Your task to perform on an android device: Open my contact list Image 0: 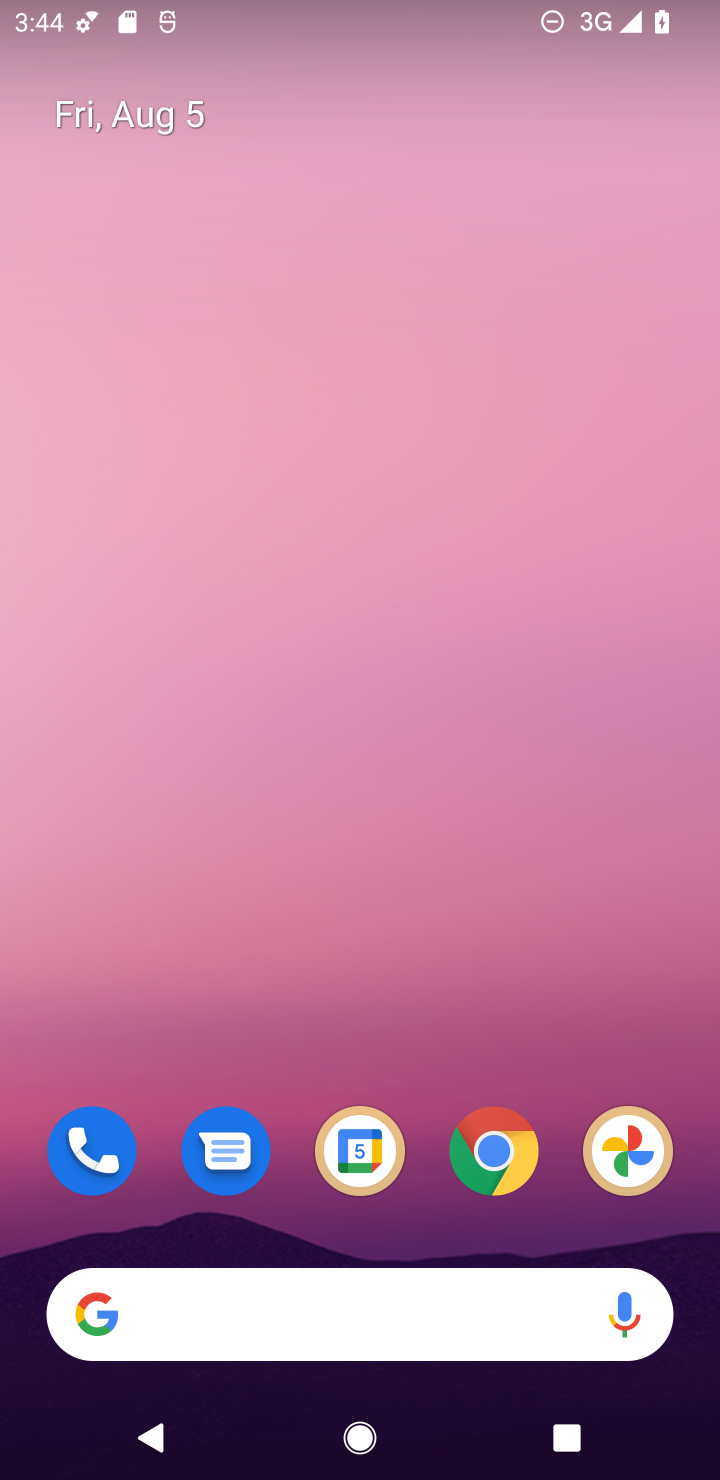
Step 0: drag from (325, 994) to (277, 251)
Your task to perform on an android device: Open my contact list Image 1: 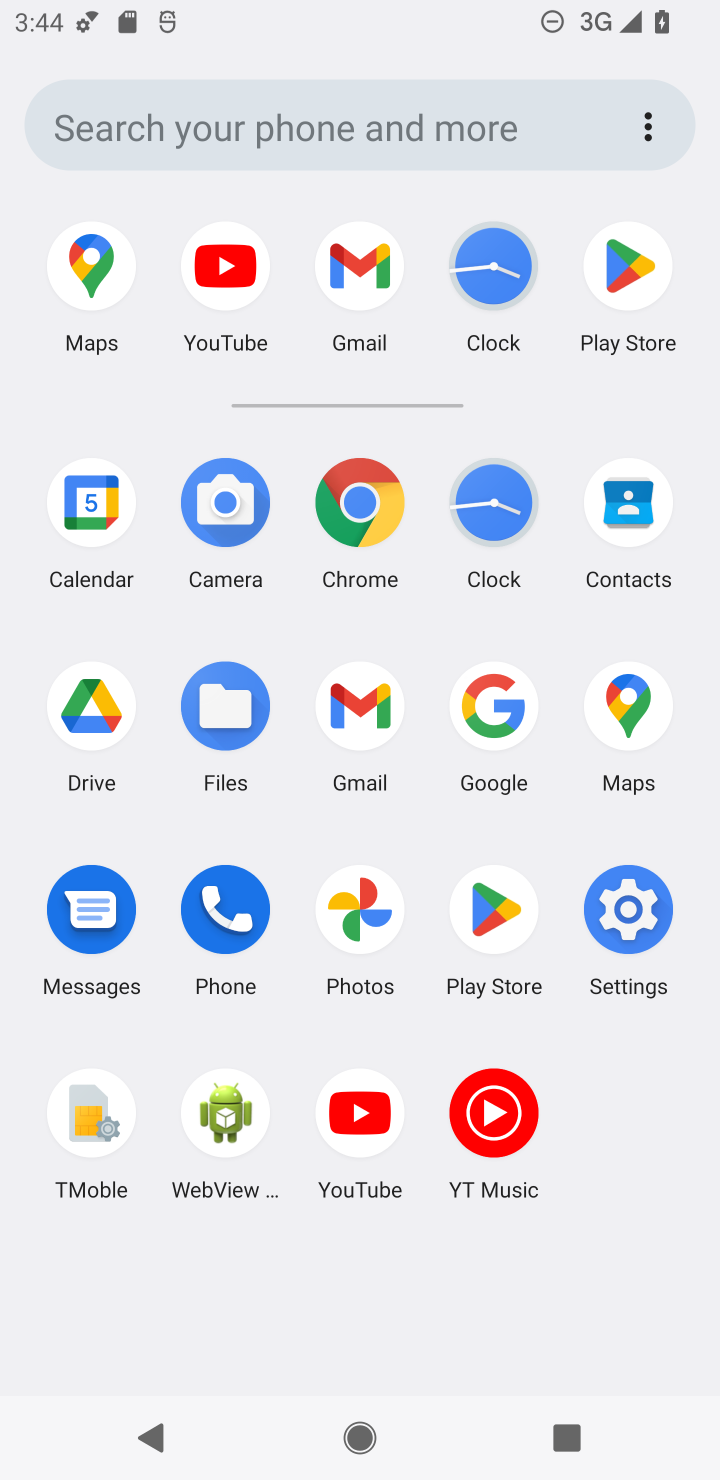
Step 1: click (631, 493)
Your task to perform on an android device: Open my contact list Image 2: 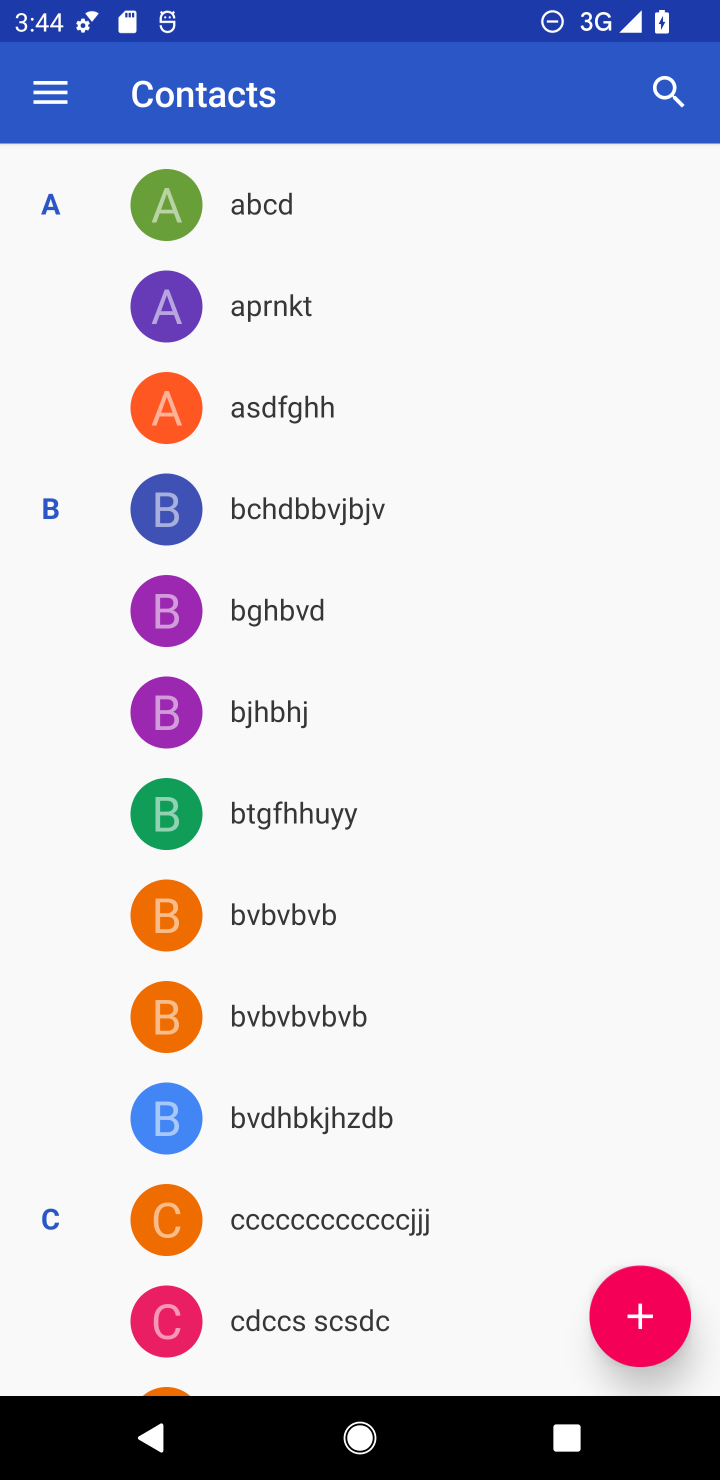
Step 2: task complete